Your task to perform on an android device: toggle notification dots Image 0: 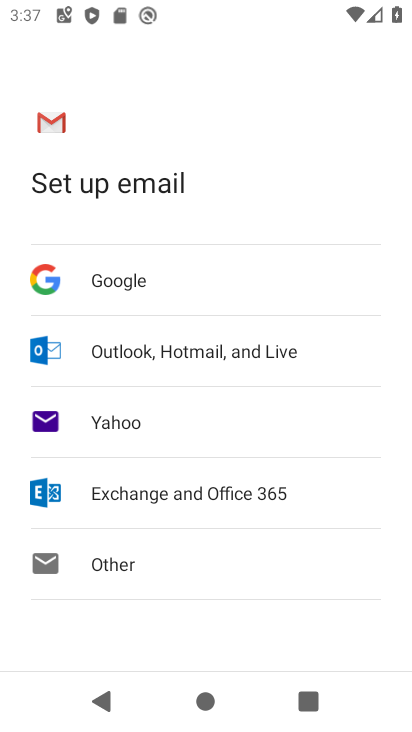
Step 0: press home button
Your task to perform on an android device: toggle notification dots Image 1: 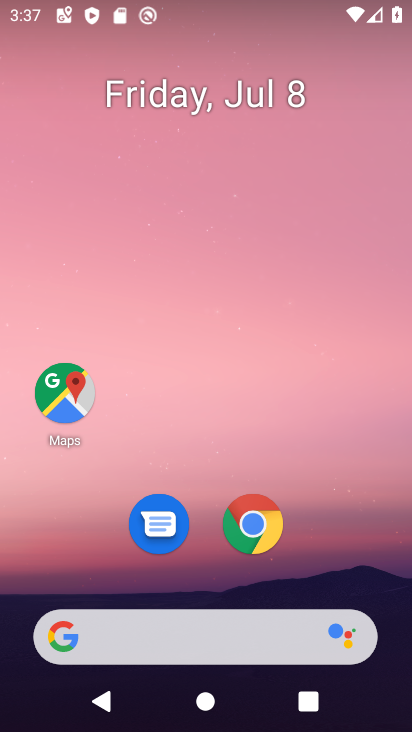
Step 1: drag from (324, 563) to (290, 42)
Your task to perform on an android device: toggle notification dots Image 2: 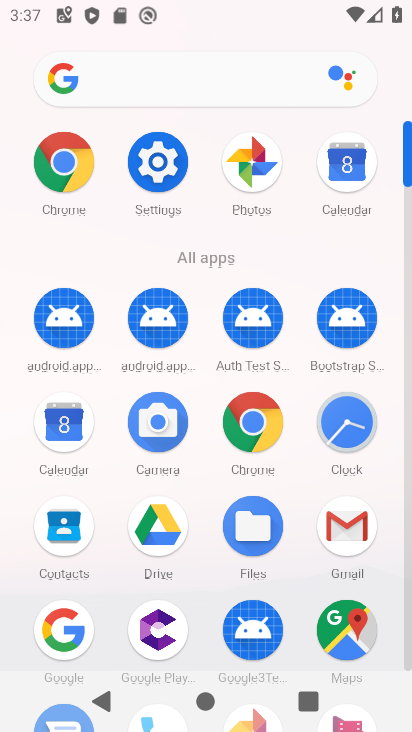
Step 2: click (174, 166)
Your task to perform on an android device: toggle notification dots Image 3: 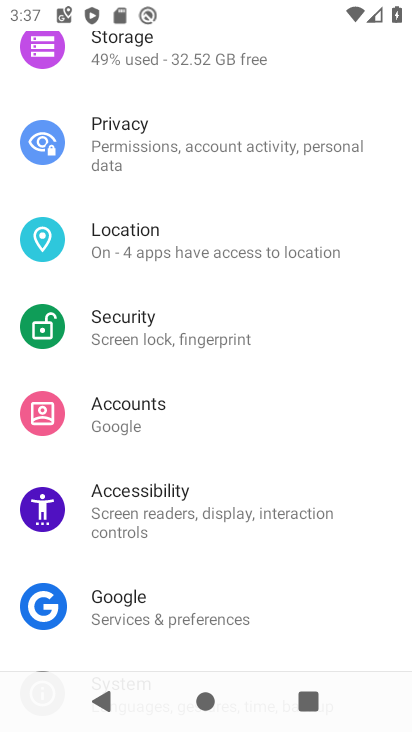
Step 3: drag from (252, 231) to (300, 488)
Your task to perform on an android device: toggle notification dots Image 4: 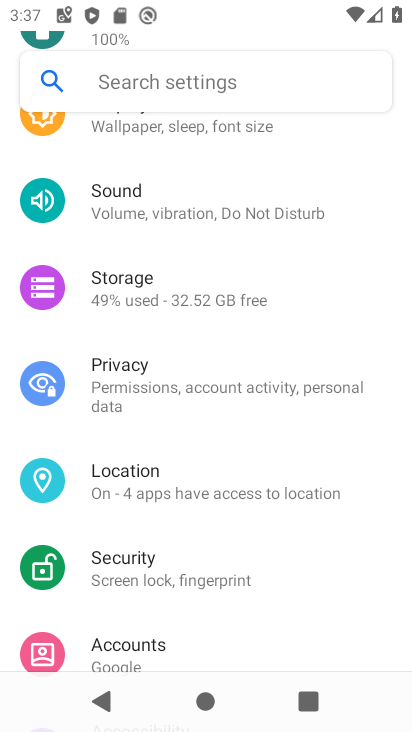
Step 4: drag from (222, 188) to (301, 544)
Your task to perform on an android device: toggle notification dots Image 5: 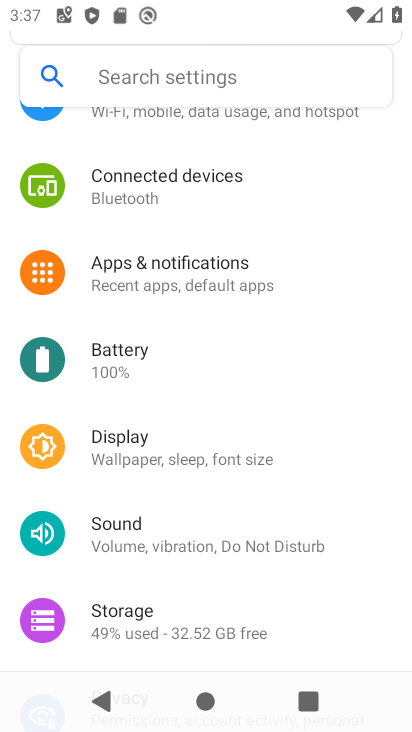
Step 5: drag from (198, 198) to (219, 414)
Your task to perform on an android device: toggle notification dots Image 6: 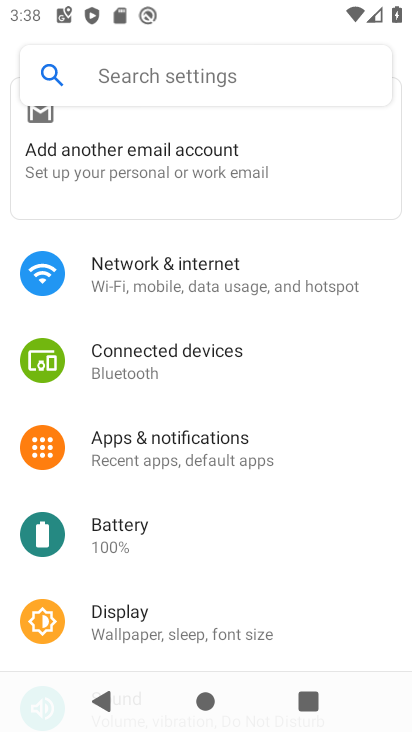
Step 6: click (196, 456)
Your task to perform on an android device: toggle notification dots Image 7: 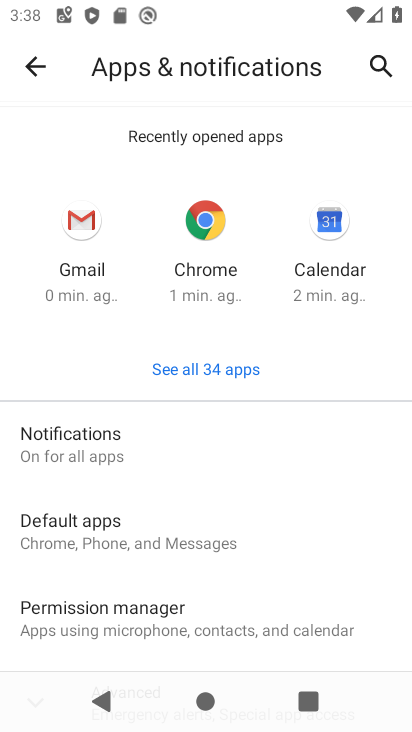
Step 7: click (113, 445)
Your task to perform on an android device: toggle notification dots Image 8: 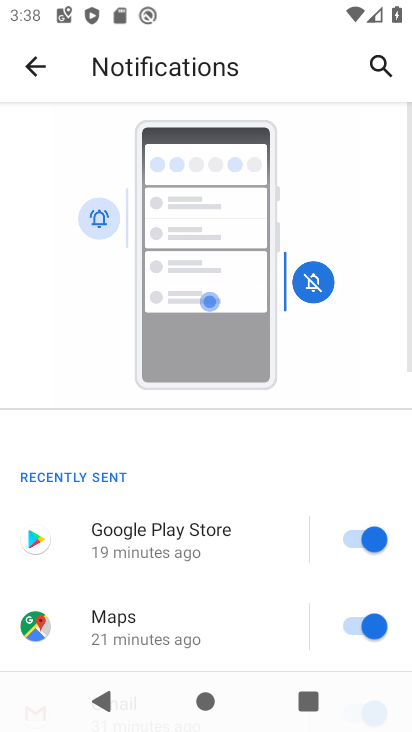
Step 8: drag from (230, 574) to (194, 0)
Your task to perform on an android device: toggle notification dots Image 9: 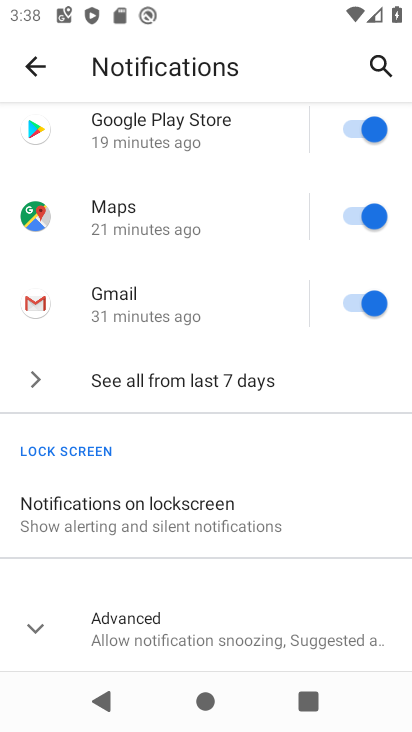
Step 9: click (33, 626)
Your task to perform on an android device: toggle notification dots Image 10: 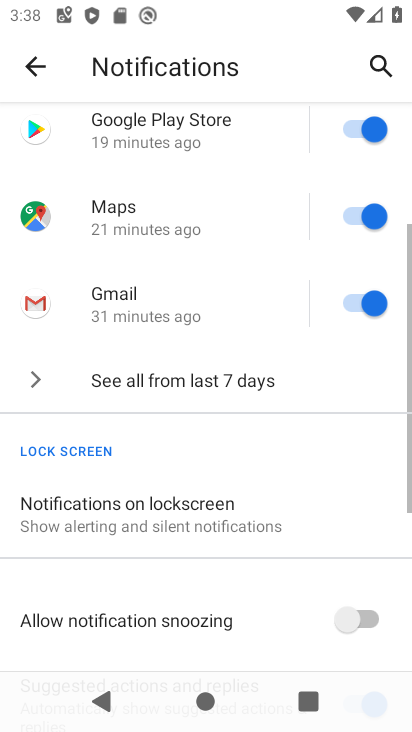
Step 10: drag from (261, 606) to (275, 180)
Your task to perform on an android device: toggle notification dots Image 11: 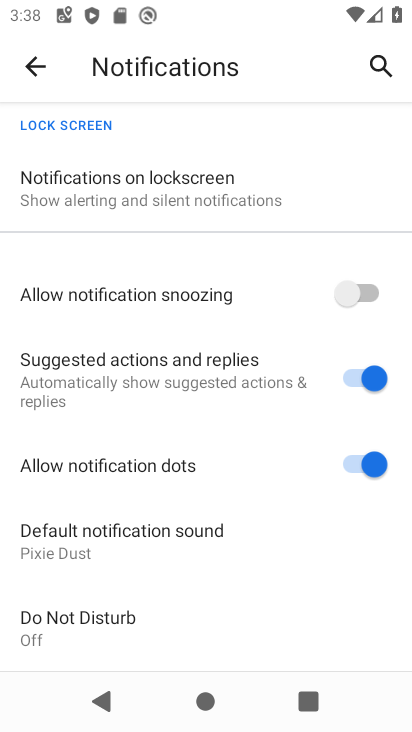
Step 11: click (361, 468)
Your task to perform on an android device: toggle notification dots Image 12: 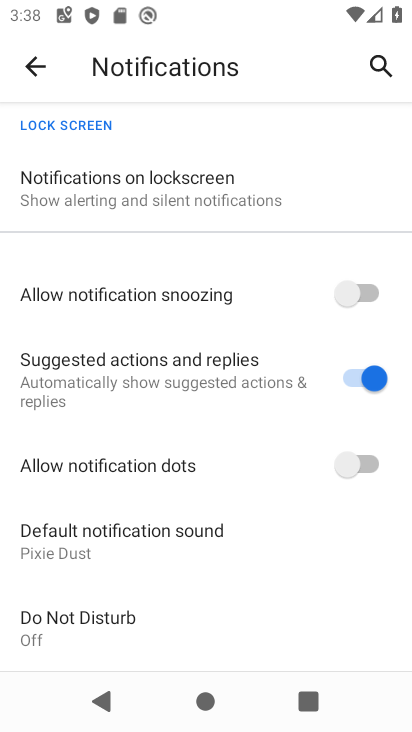
Step 12: task complete